Your task to perform on an android device: turn off location history Image 0: 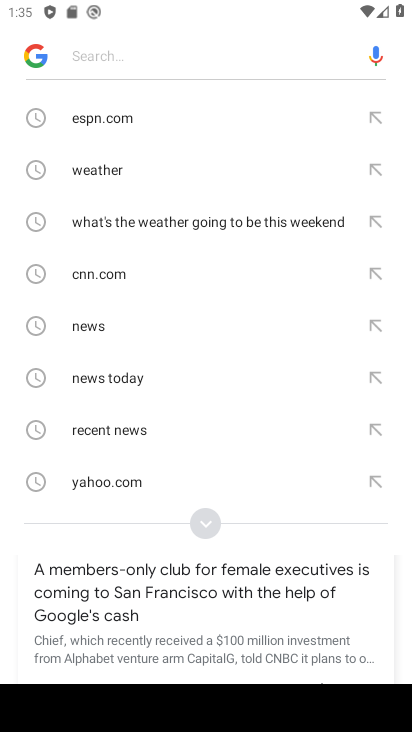
Step 0: press back button
Your task to perform on an android device: turn off location history Image 1: 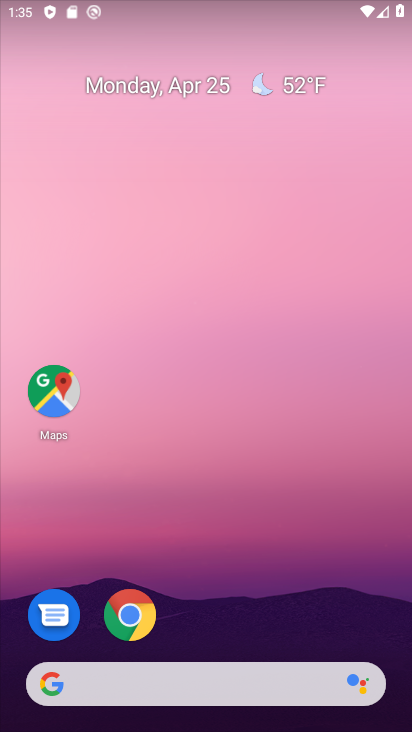
Step 1: drag from (243, 578) to (183, 60)
Your task to perform on an android device: turn off location history Image 2: 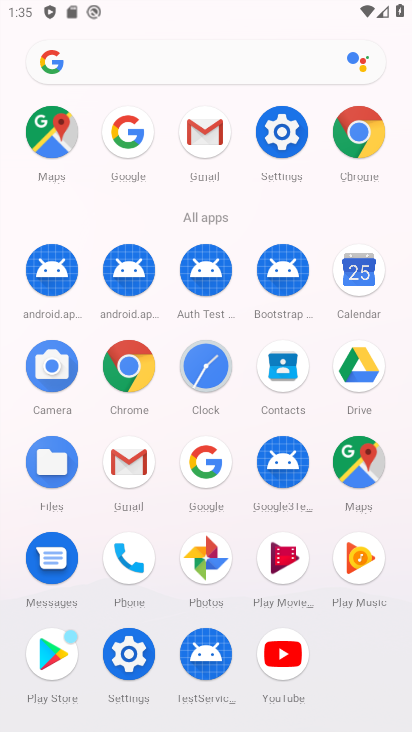
Step 2: click (281, 130)
Your task to perform on an android device: turn off location history Image 3: 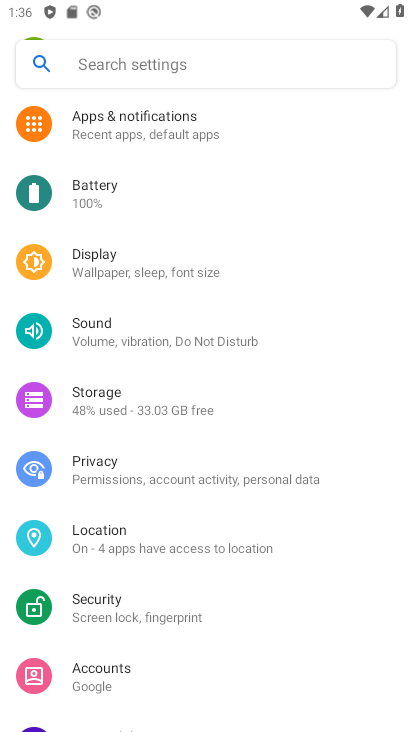
Step 3: click (110, 526)
Your task to perform on an android device: turn off location history Image 4: 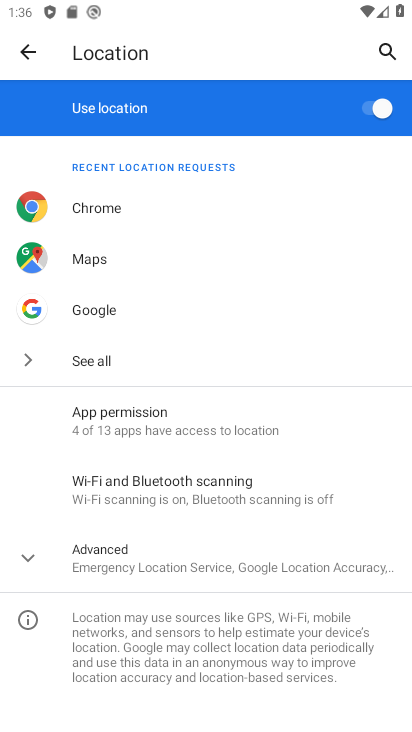
Step 4: click (133, 561)
Your task to perform on an android device: turn off location history Image 5: 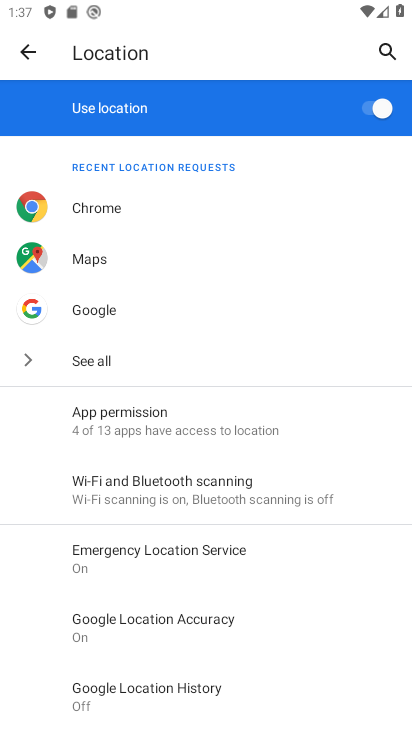
Step 5: task complete